Your task to perform on an android device: toggle improve location accuracy Image 0: 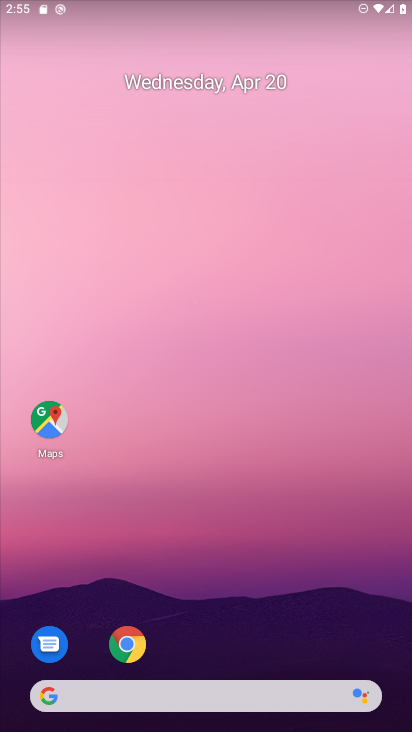
Step 0: drag from (203, 496) to (247, 5)
Your task to perform on an android device: toggle improve location accuracy Image 1: 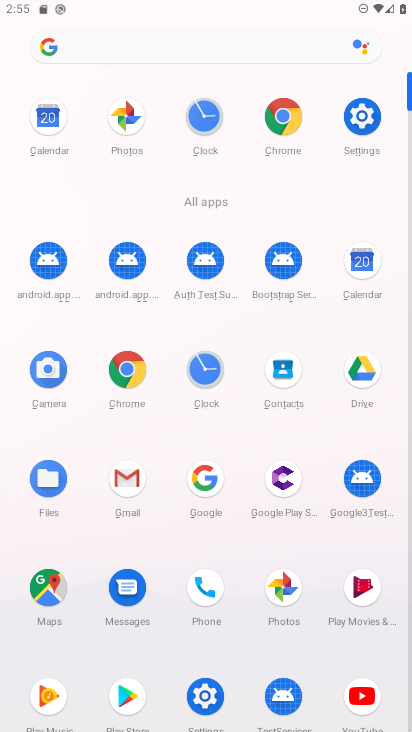
Step 1: click (368, 113)
Your task to perform on an android device: toggle improve location accuracy Image 2: 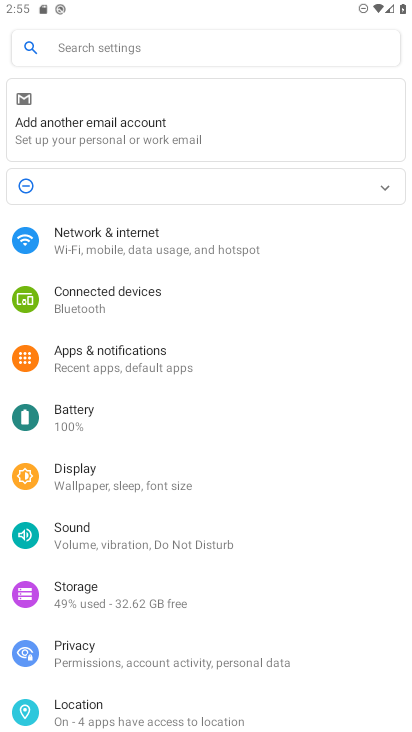
Step 2: click (109, 701)
Your task to perform on an android device: toggle improve location accuracy Image 3: 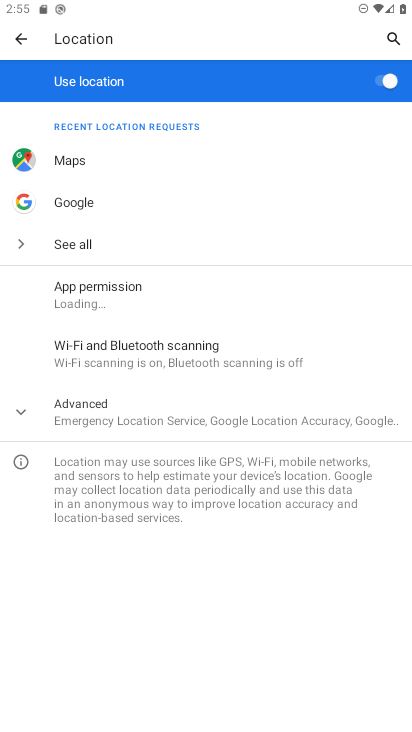
Step 3: click (127, 410)
Your task to perform on an android device: toggle improve location accuracy Image 4: 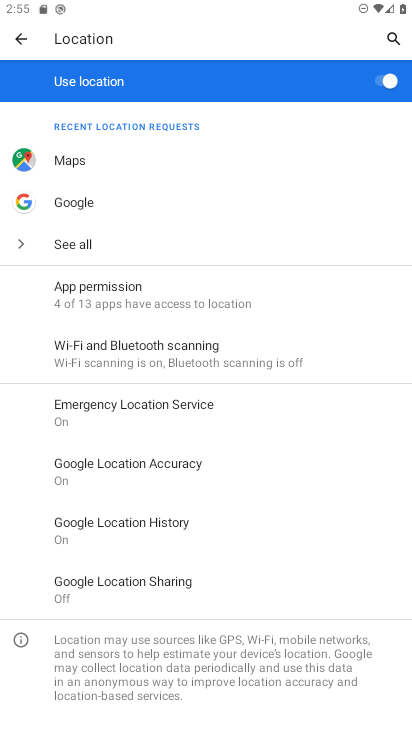
Step 4: click (142, 469)
Your task to perform on an android device: toggle improve location accuracy Image 5: 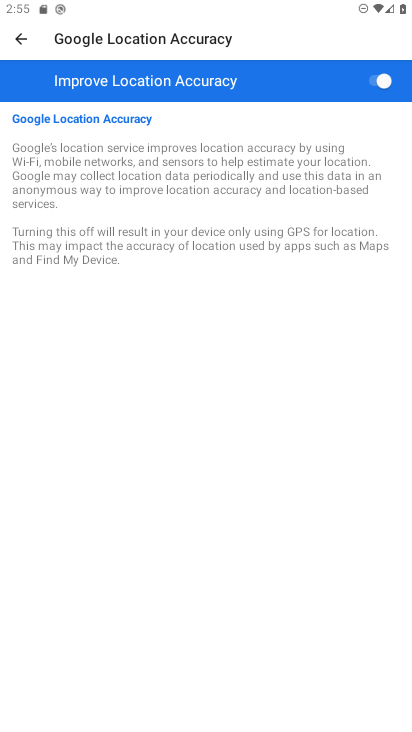
Step 5: click (380, 82)
Your task to perform on an android device: toggle improve location accuracy Image 6: 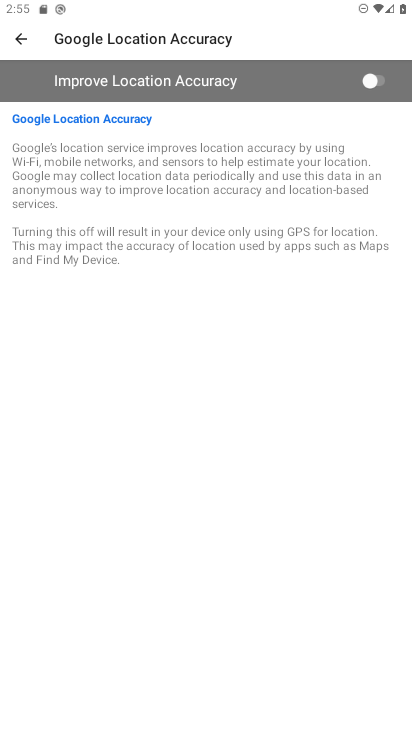
Step 6: task complete